Your task to perform on an android device: turn smart compose on in the gmail app Image 0: 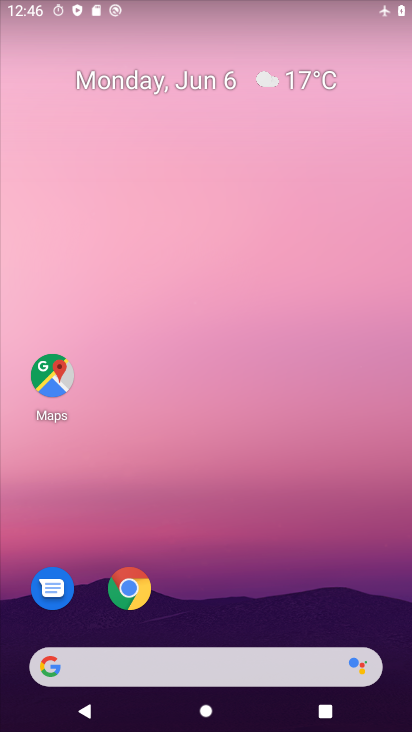
Step 0: drag from (283, 534) to (290, 64)
Your task to perform on an android device: turn smart compose on in the gmail app Image 1: 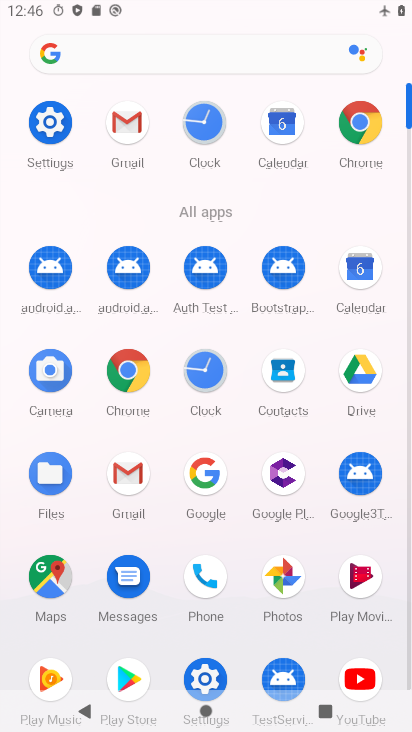
Step 1: click (124, 129)
Your task to perform on an android device: turn smart compose on in the gmail app Image 2: 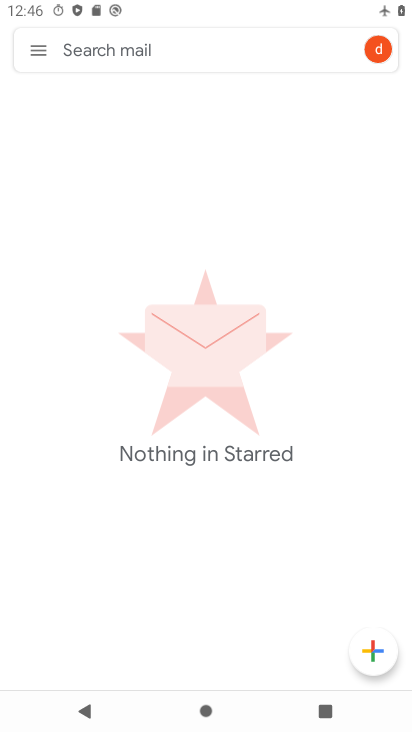
Step 2: click (45, 53)
Your task to perform on an android device: turn smart compose on in the gmail app Image 3: 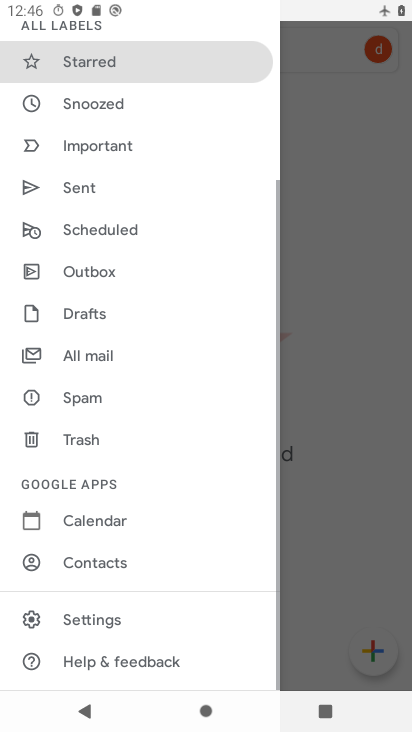
Step 3: click (79, 614)
Your task to perform on an android device: turn smart compose on in the gmail app Image 4: 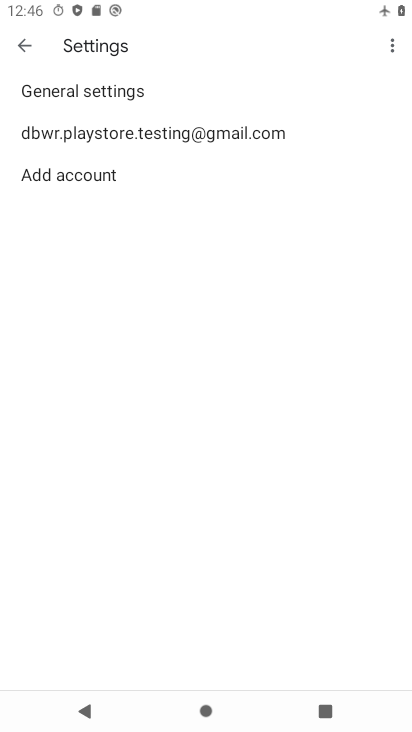
Step 4: click (105, 137)
Your task to perform on an android device: turn smart compose on in the gmail app Image 5: 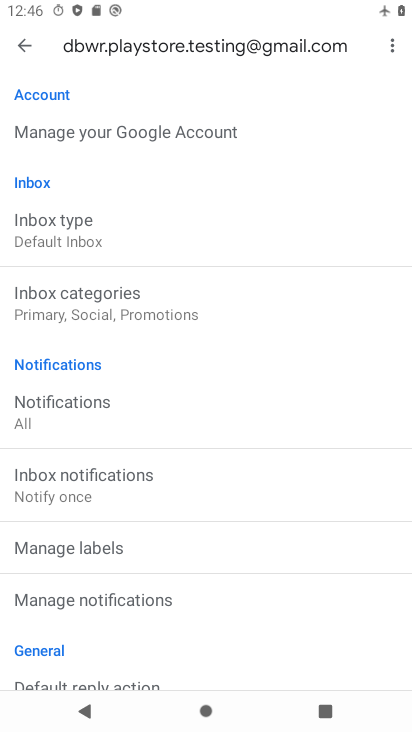
Step 5: task complete